Your task to perform on an android device: toggle location history Image 0: 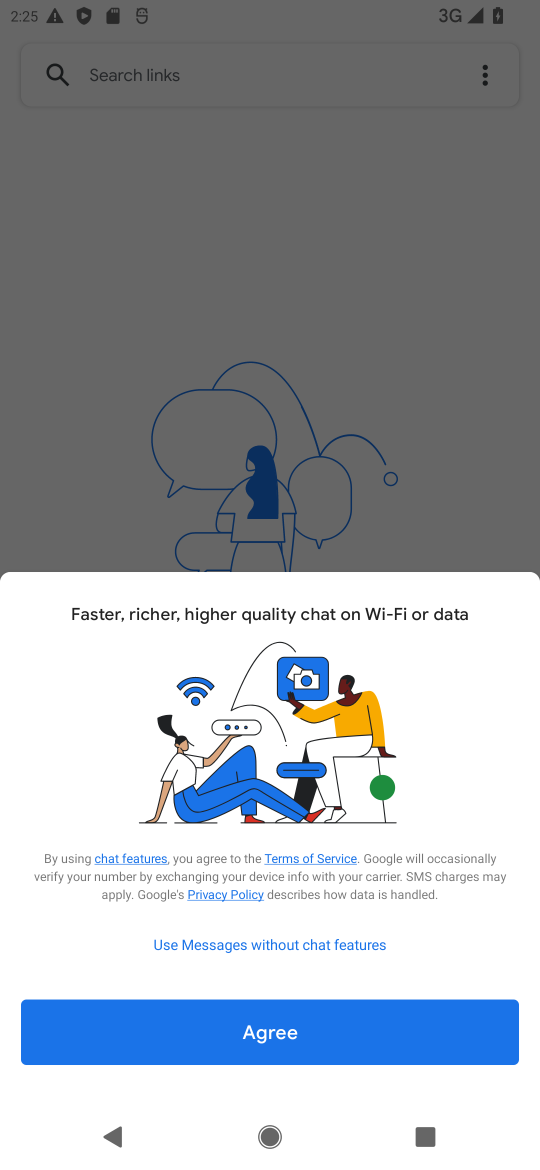
Step 0: press home button
Your task to perform on an android device: toggle location history Image 1: 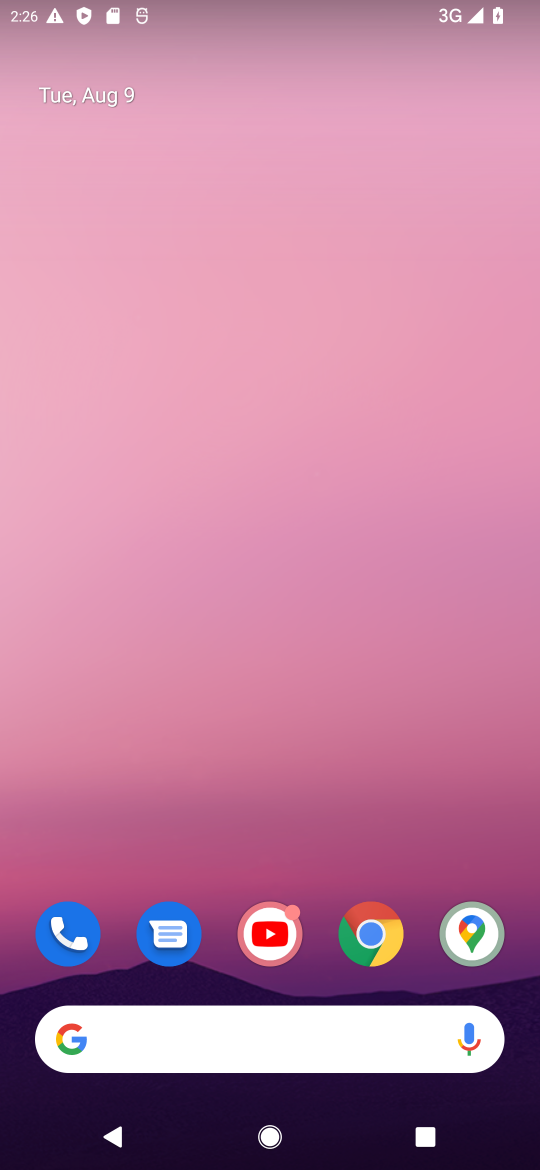
Step 1: drag from (316, 983) to (335, 769)
Your task to perform on an android device: toggle location history Image 2: 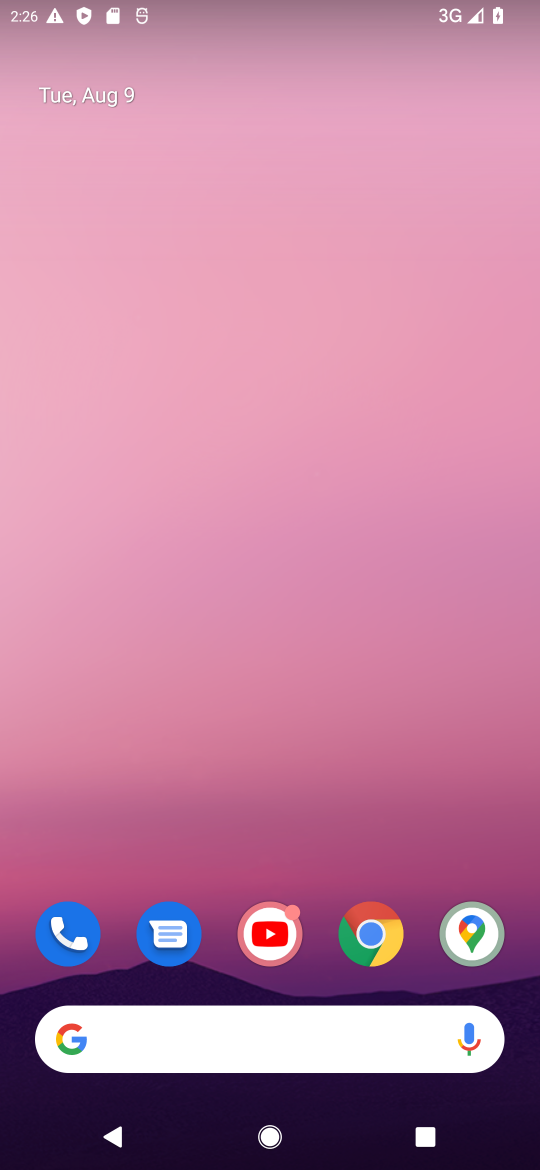
Step 2: drag from (323, 983) to (366, 158)
Your task to perform on an android device: toggle location history Image 3: 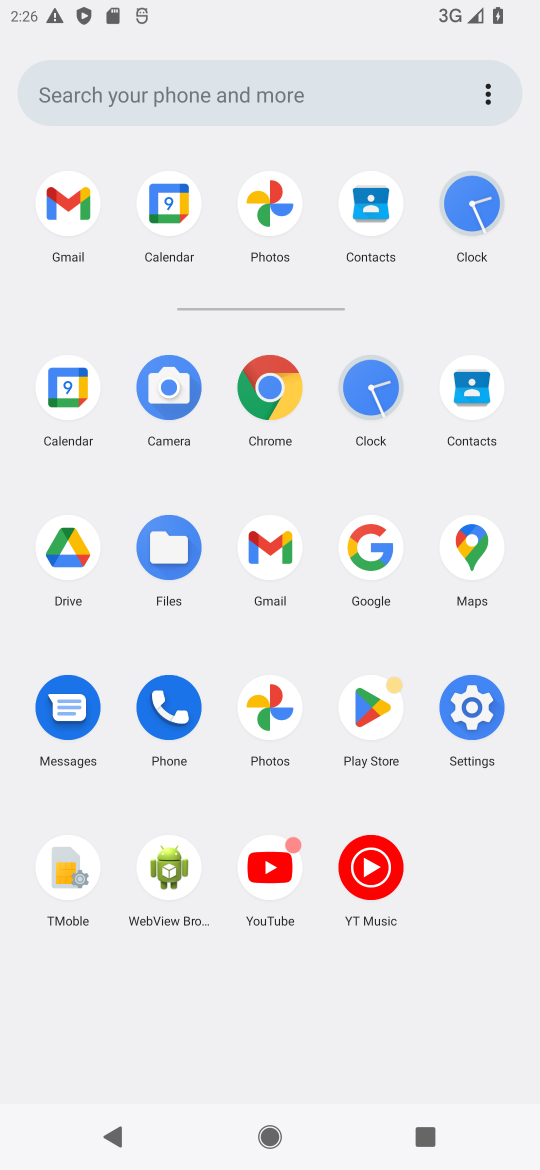
Step 3: click (472, 730)
Your task to perform on an android device: toggle location history Image 4: 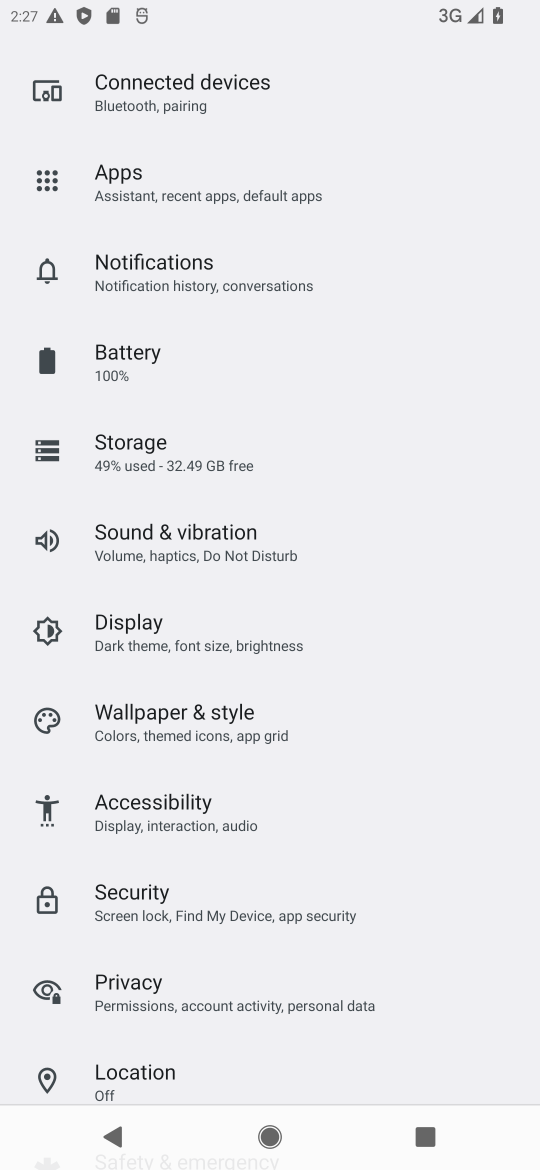
Step 4: click (283, 1075)
Your task to perform on an android device: toggle location history Image 5: 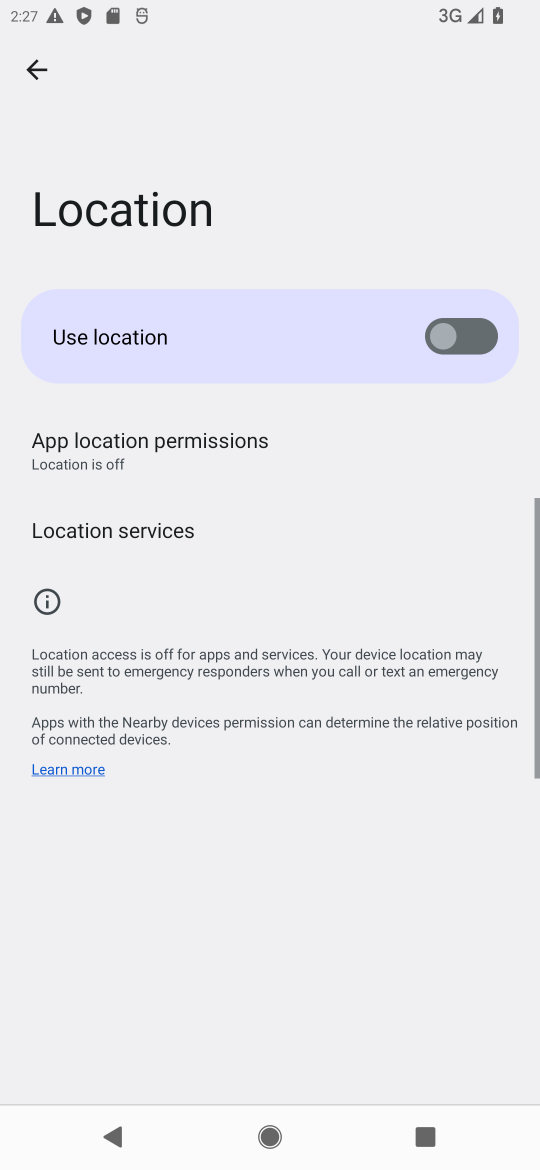
Step 5: task complete